Your task to perform on an android device: Clear the shopping cart on target. Add sony triple a to the cart on target Image 0: 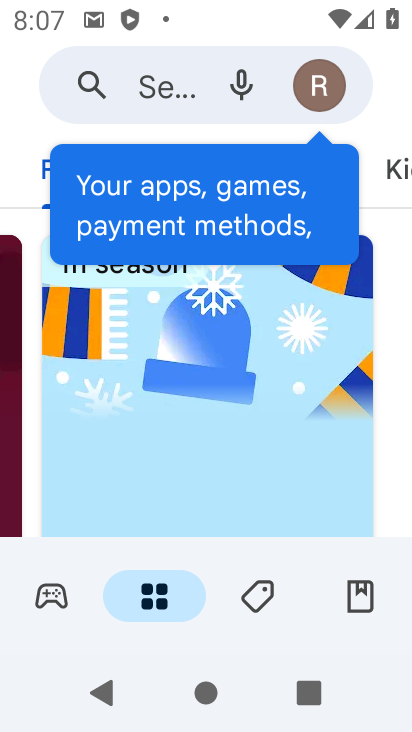
Step 0: task complete